Your task to perform on an android device: turn on bluetooth scan Image 0: 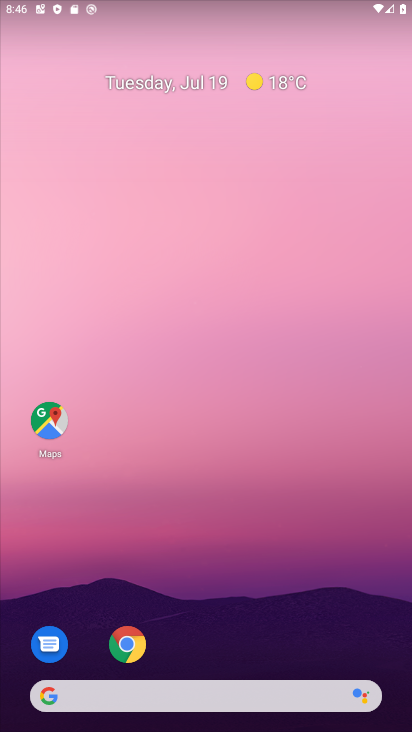
Step 0: drag from (221, 717) to (222, 266)
Your task to perform on an android device: turn on bluetooth scan Image 1: 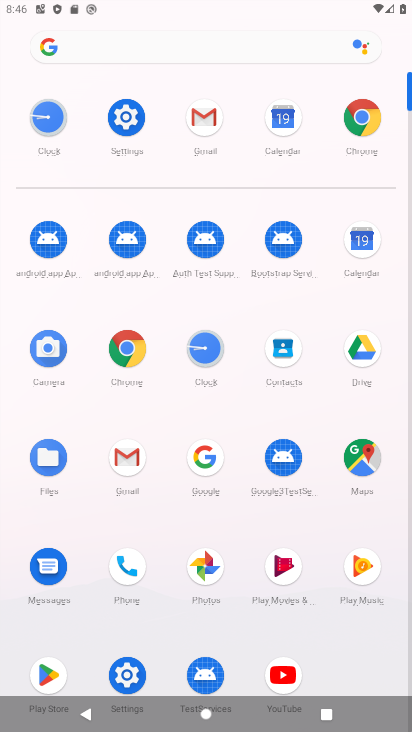
Step 1: click (120, 123)
Your task to perform on an android device: turn on bluetooth scan Image 2: 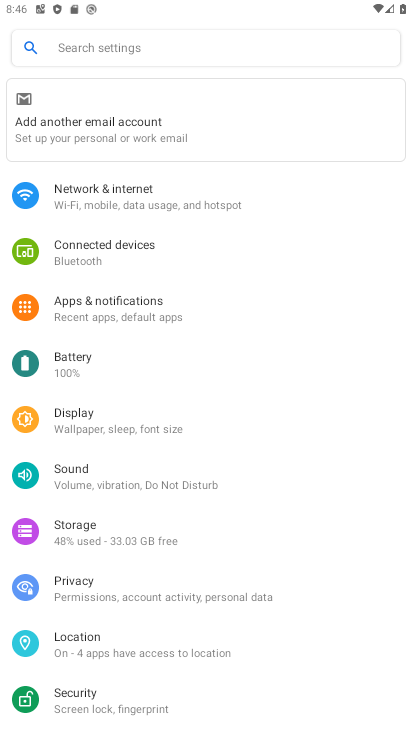
Step 2: click (85, 644)
Your task to perform on an android device: turn on bluetooth scan Image 3: 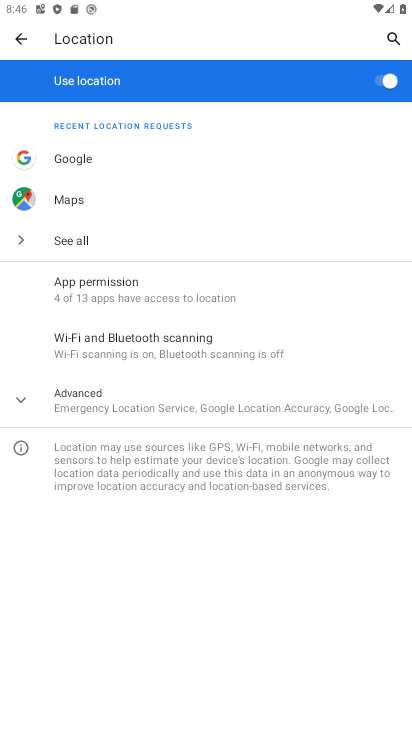
Step 3: click (114, 339)
Your task to perform on an android device: turn on bluetooth scan Image 4: 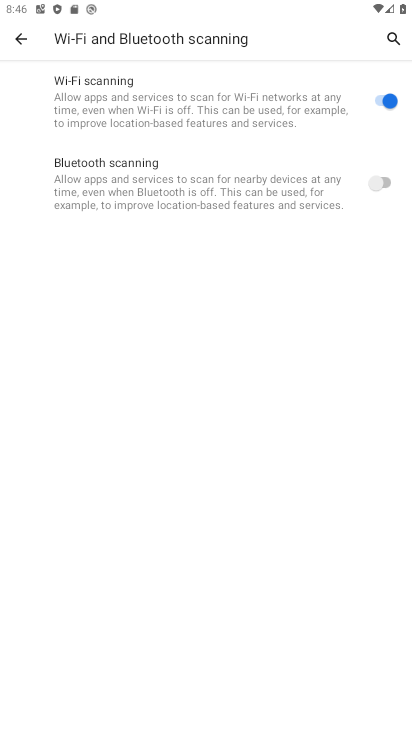
Step 4: click (385, 179)
Your task to perform on an android device: turn on bluetooth scan Image 5: 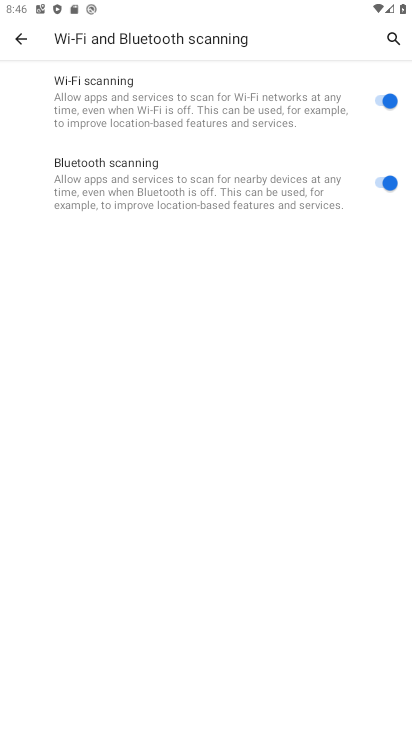
Step 5: task complete